Your task to perform on an android device: Show the shopping cart on target. Add "razer blade" to the cart on target Image 0: 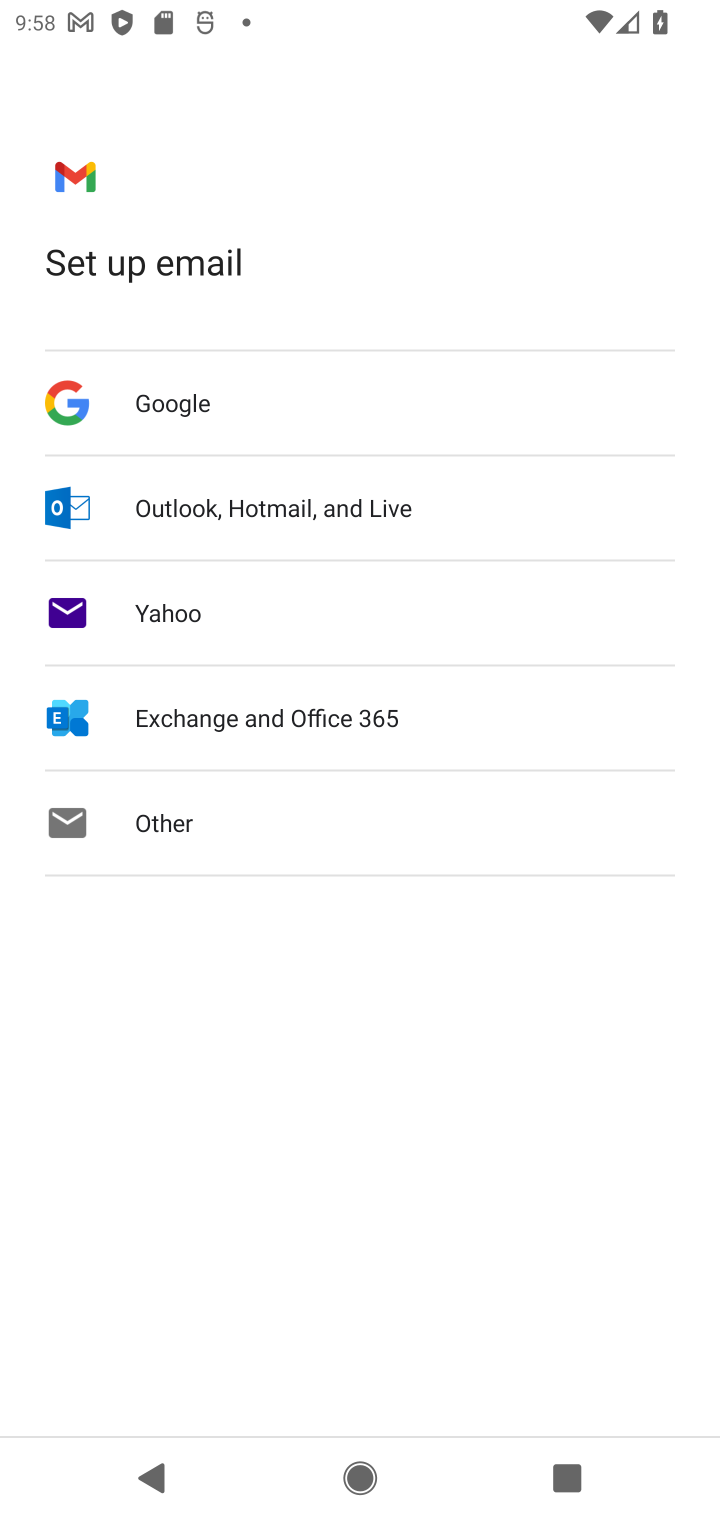
Step 0: press home button
Your task to perform on an android device: Show the shopping cart on target. Add "razer blade" to the cart on target Image 1: 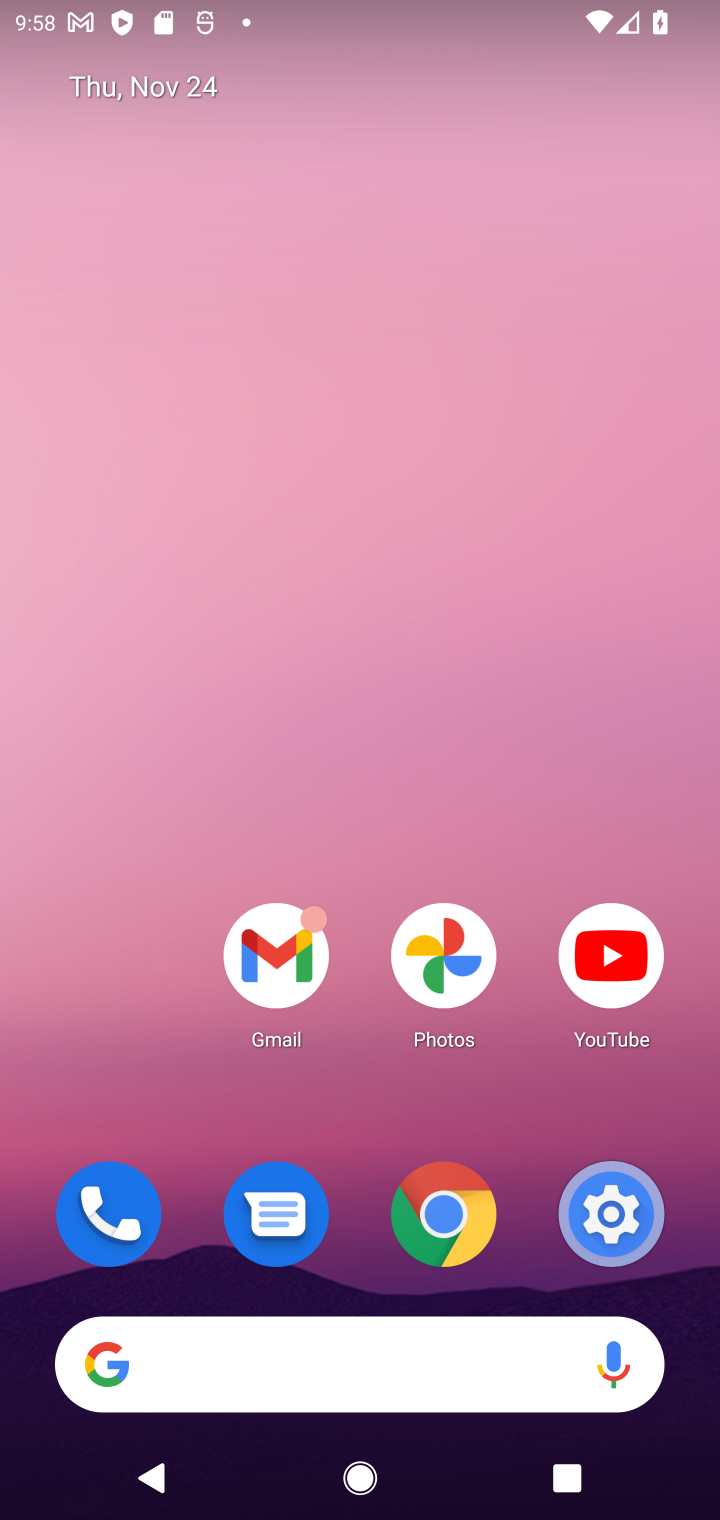
Step 1: click (273, 1342)
Your task to perform on an android device: Show the shopping cart on target. Add "razer blade" to the cart on target Image 2: 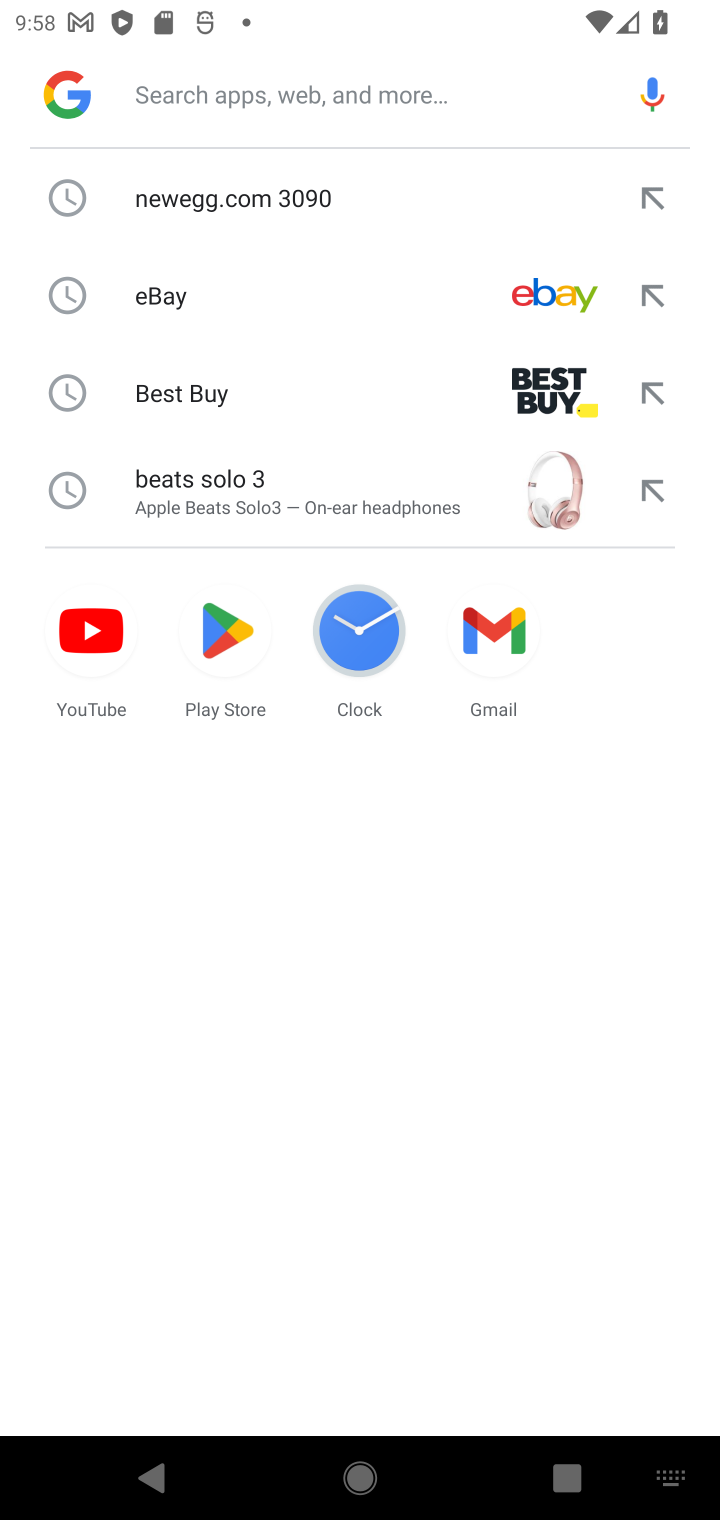
Step 2: type "razer blade "
Your task to perform on an android device: Show the shopping cart on target. Add "razer blade" to the cart on target Image 3: 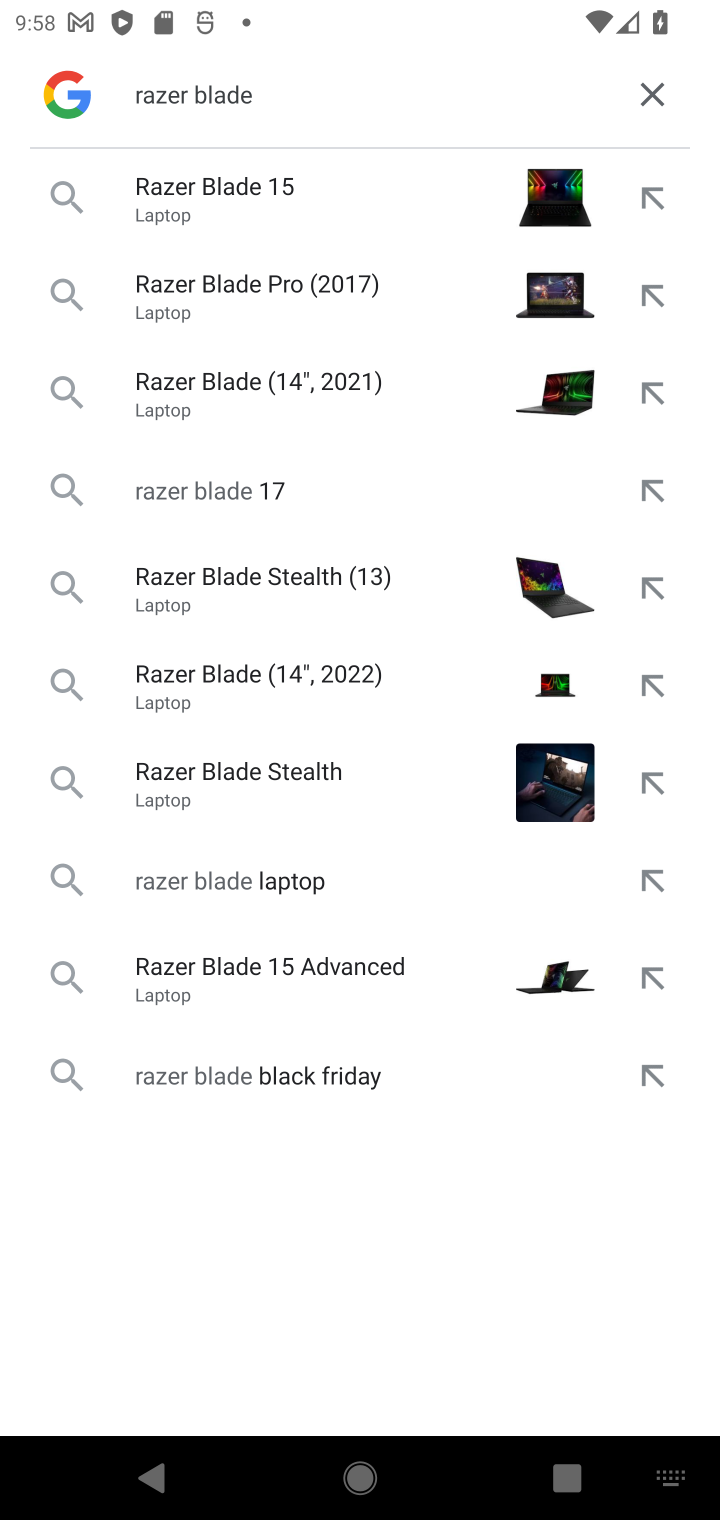
Step 3: click (221, 209)
Your task to perform on an android device: Show the shopping cart on target. Add "razer blade" to the cart on target Image 4: 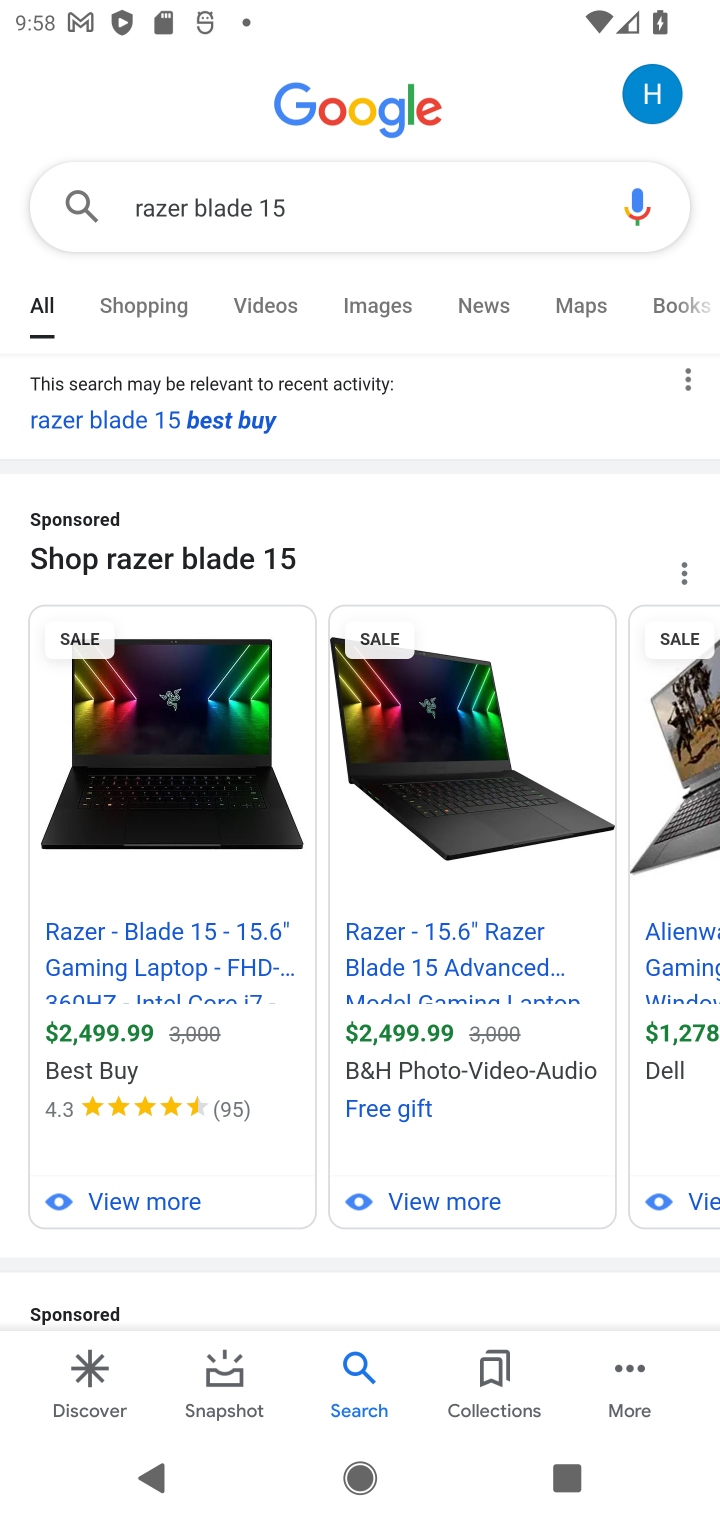
Step 4: task complete